Your task to perform on an android device: Open Google Maps Image 0: 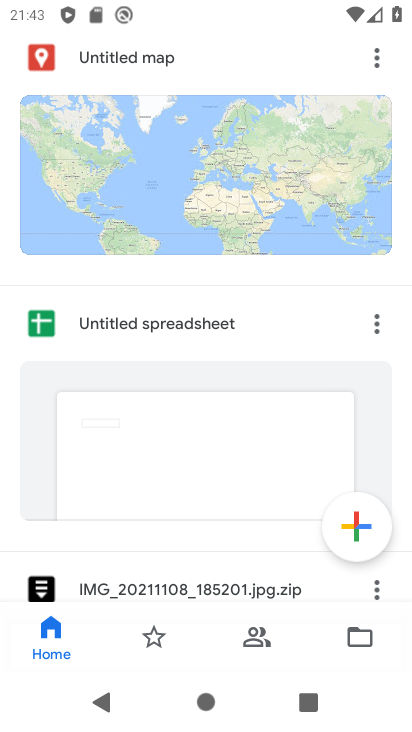
Step 0: press home button
Your task to perform on an android device: Open Google Maps Image 1: 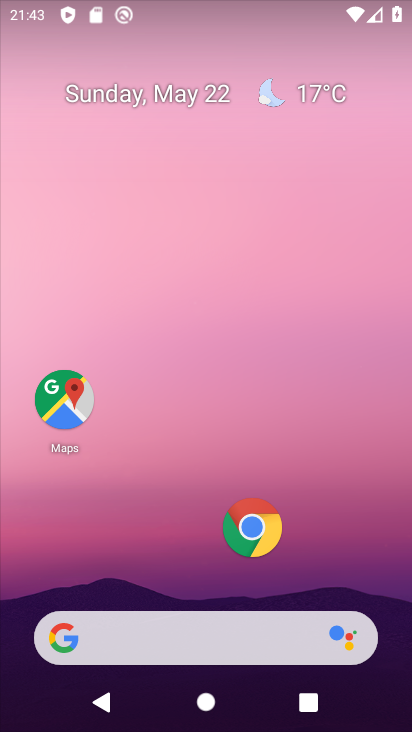
Step 1: click (67, 408)
Your task to perform on an android device: Open Google Maps Image 2: 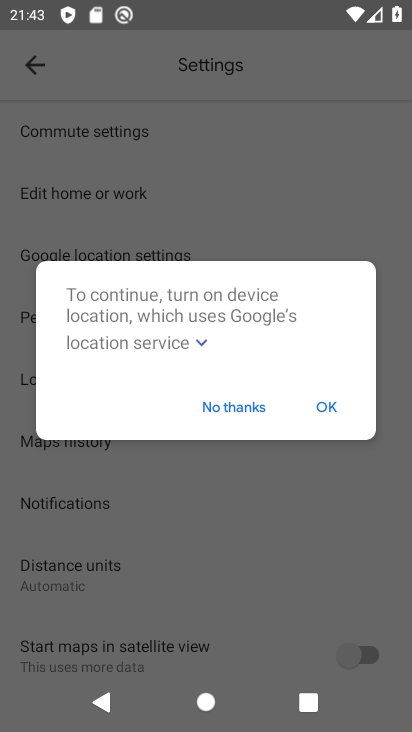
Step 2: click (337, 412)
Your task to perform on an android device: Open Google Maps Image 3: 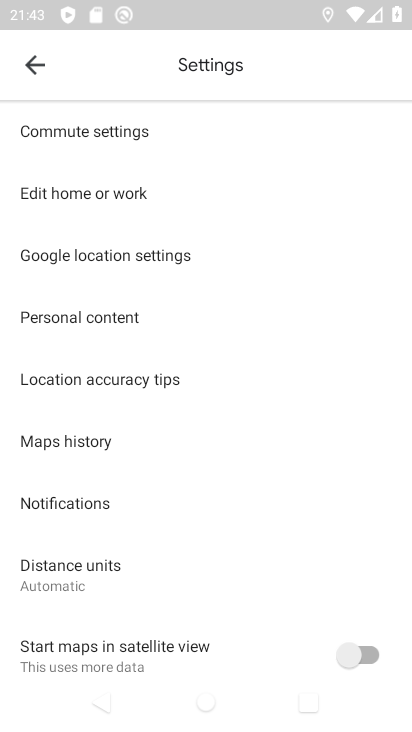
Step 3: click (36, 72)
Your task to perform on an android device: Open Google Maps Image 4: 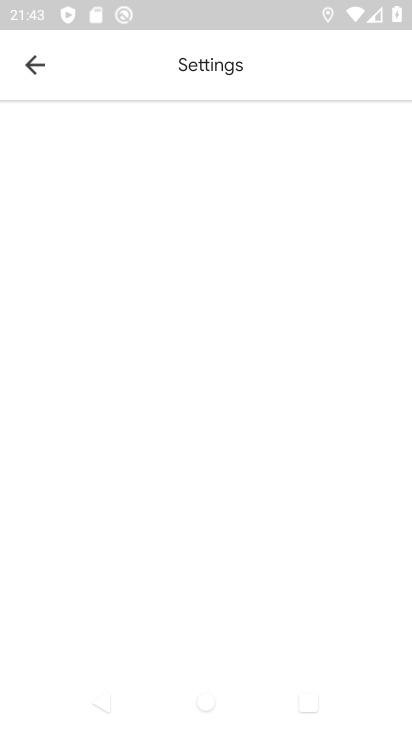
Step 4: click (34, 65)
Your task to perform on an android device: Open Google Maps Image 5: 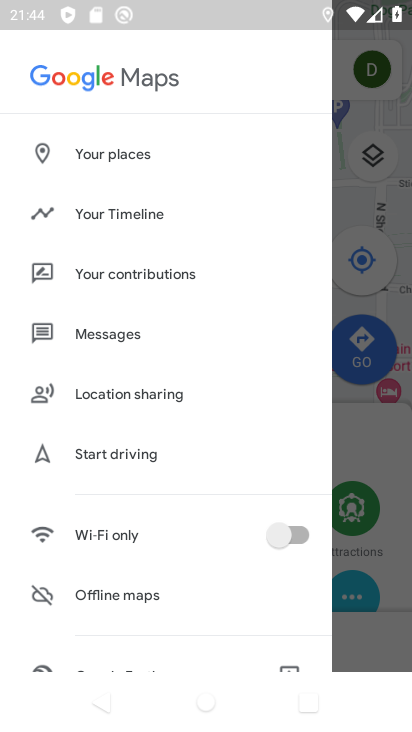
Step 5: click (346, 185)
Your task to perform on an android device: Open Google Maps Image 6: 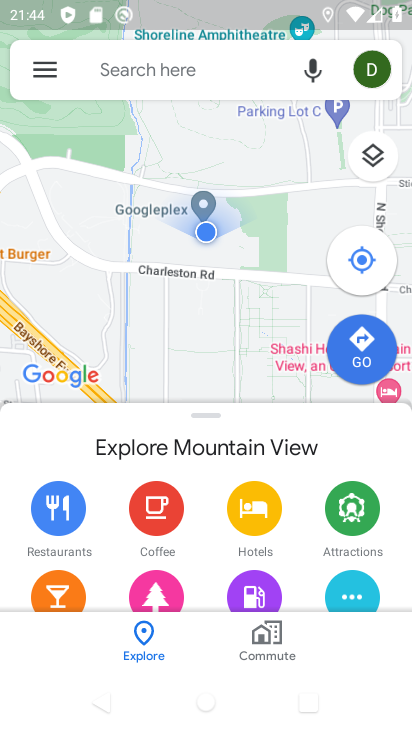
Step 6: click (159, 62)
Your task to perform on an android device: Open Google Maps Image 7: 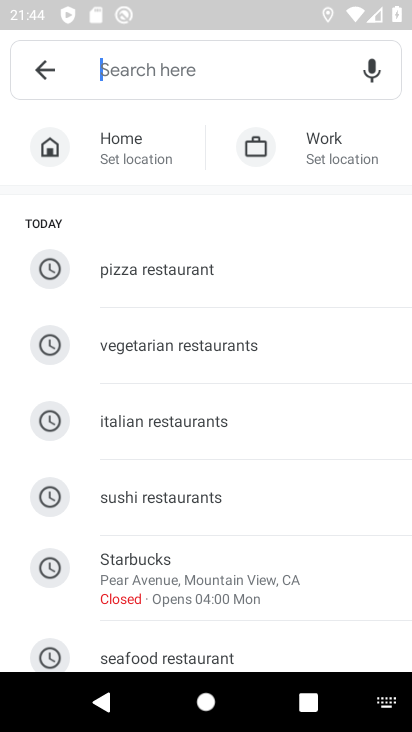
Step 7: task complete